Your task to perform on an android device: toggle translation in the chrome app Image 0: 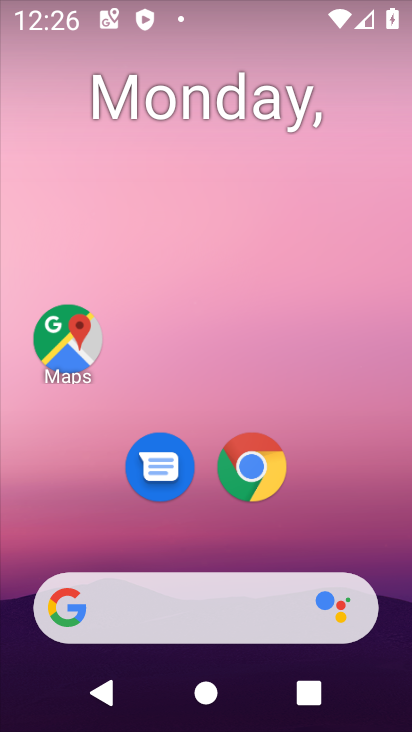
Step 0: click (251, 461)
Your task to perform on an android device: toggle translation in the chrome app Image 1: 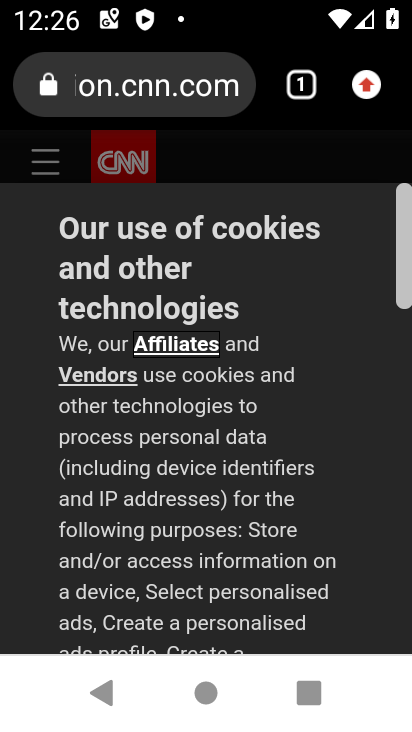
Step 1: click (362, 84)
Your task to perform on an android device: toggle translation in the chrome app Image 2: 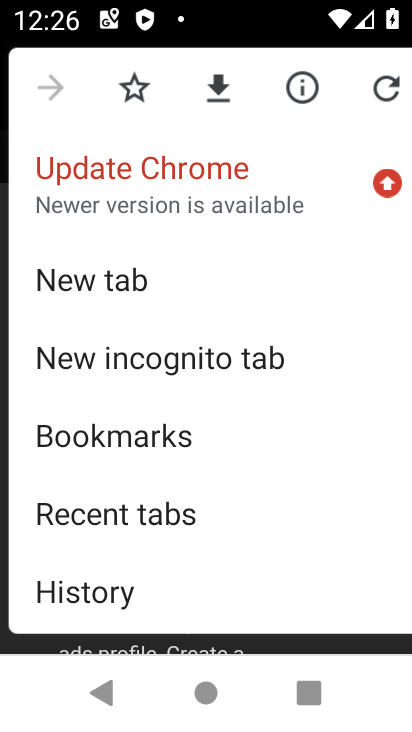
Step 2: drag from (207, 538) to (292, 244)
Your task to perform on an android device: toggle translation in the chrome app Image 3: 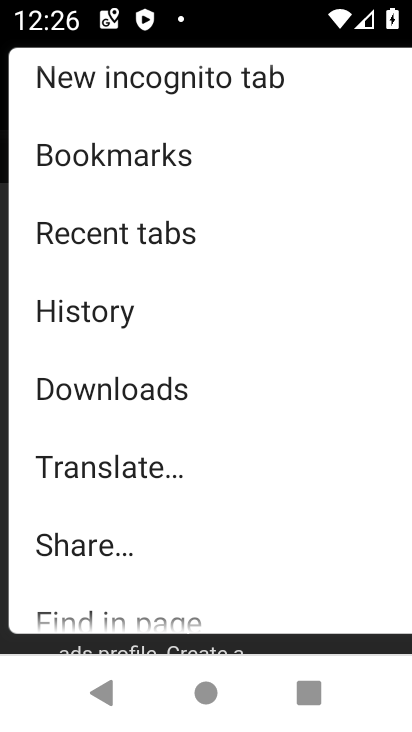
Step 3: drag from (230, 590) to (277, 260)
Your task to perform on an android device: toggle translation in the chrome app Image 4: 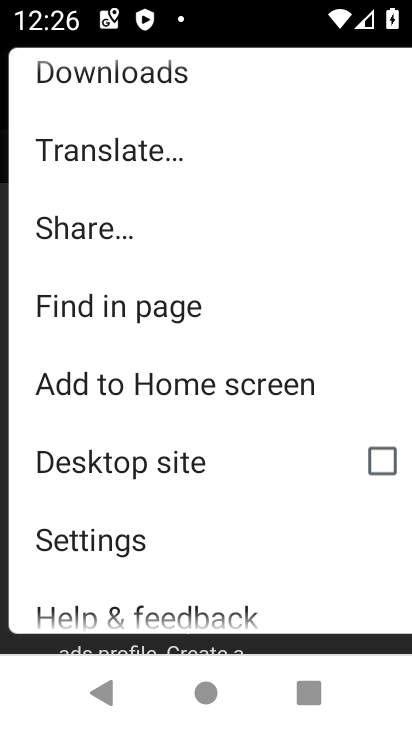
Step 4: click (86, 546)
Your task to perform on an android device: toggle translation in the chrome app Image 5: 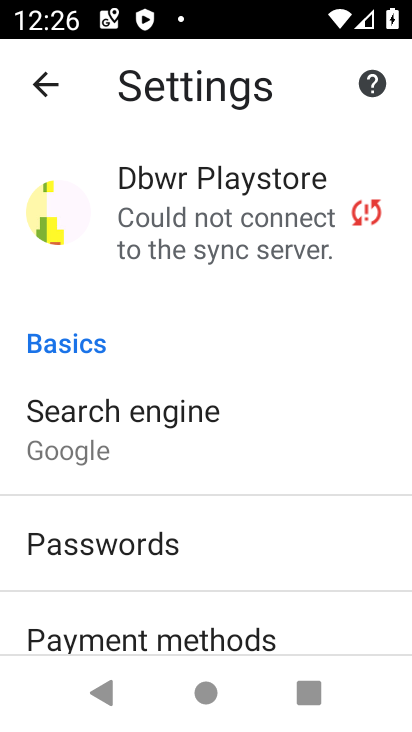
Step 5: drag from (264, 589) to (251, 210)
Your task to perform on an android device: toggle translation in the chrome app Image 6: 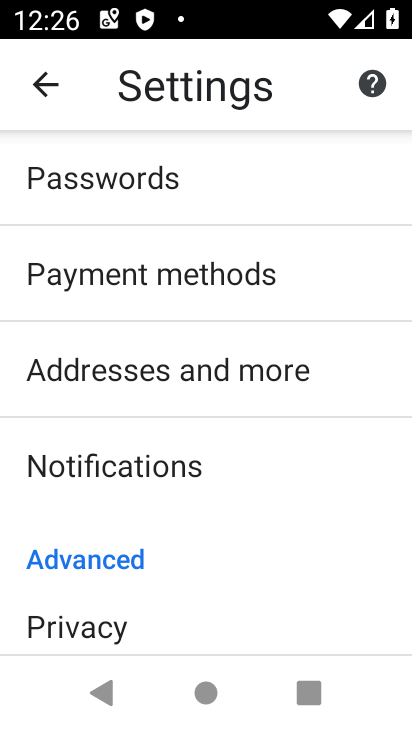
Step 6: drag from (237, 595) to (298, 253)
Your task to perform on an android device: toggle translation in the chrome app Image 7: 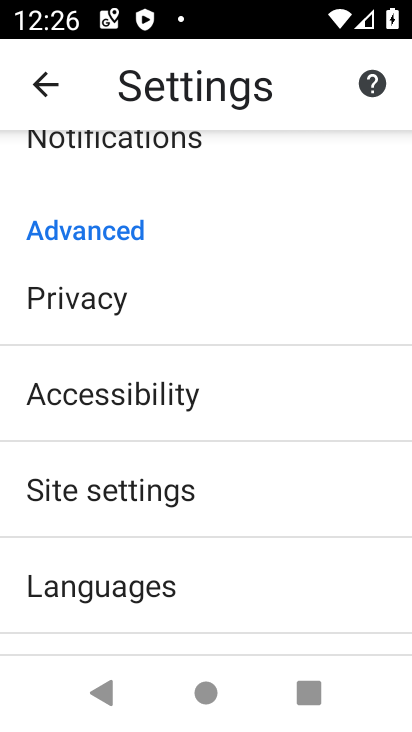
Step 7: click (91, 597)
Your task to perform on an android device: toggle translation in the chrome app Image 8: 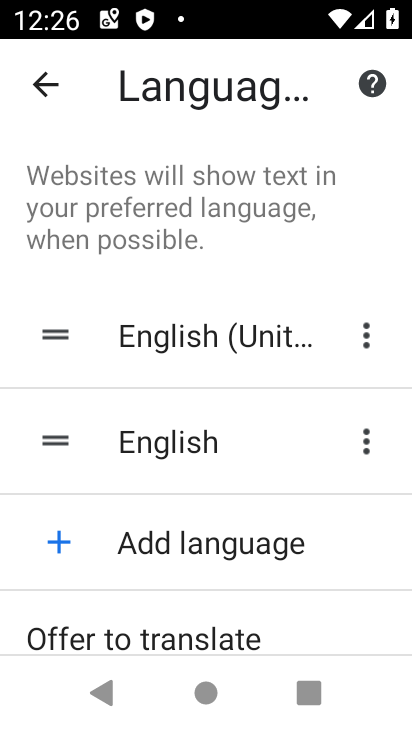
Step 8: drag from (308, 564) to (311, 242)
Your task to perform on an android device: toggle translation in the chrome app Image 9: 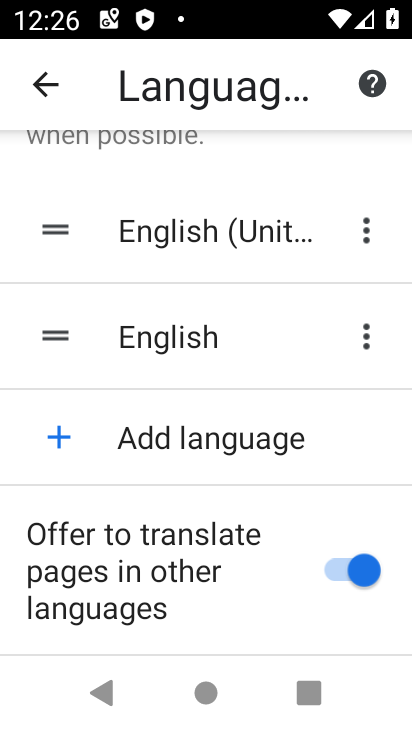
Step 9: click (333, 566)
Your task to perform on an android device: toggle translation in the chrome app Image 10: 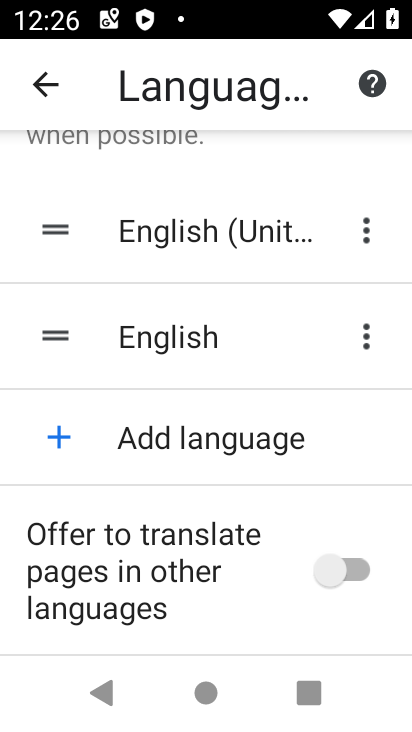
Step 10: task complete